Your task to perform on an android device: Open network settings Image 0: 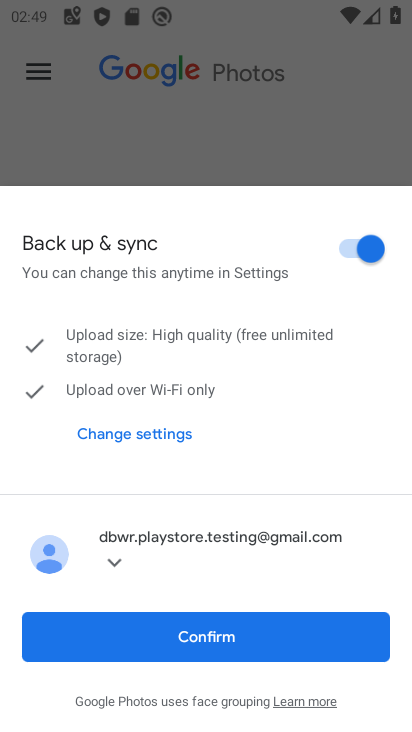
Step 0: press back button
Your task to perform on an android device: Open network settings Image 1: 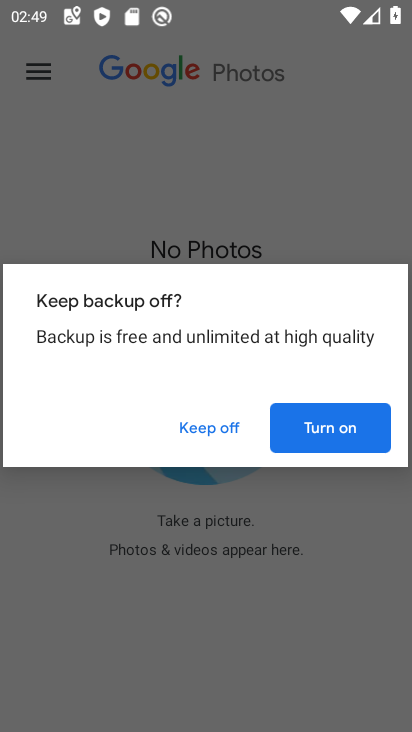
Step 1: press back button
Your task to perform on an android device: Open network settings Image 2: 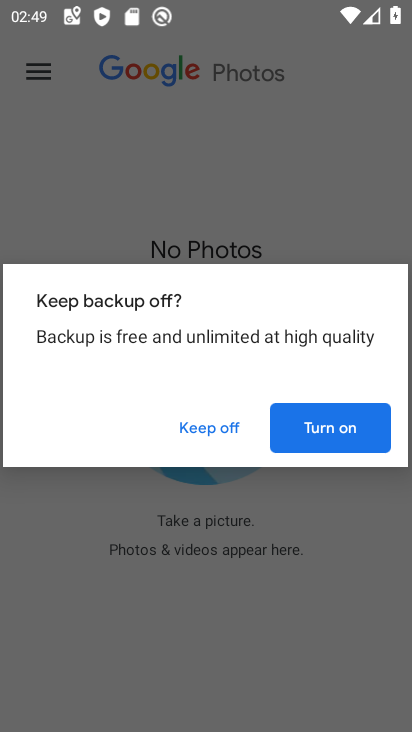
Step 2: press home button
Your task to perform on an android device: Open network settings Image 3: 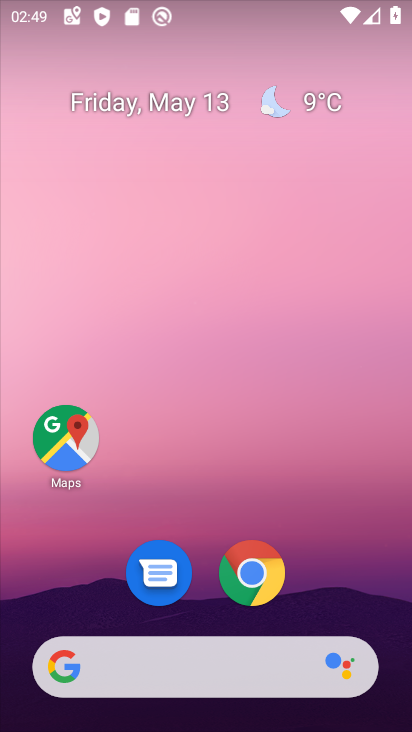
Step 3: drag from (323, 590) to (247, 169)
Your task to perform on an android device: Open network settings Image 4: 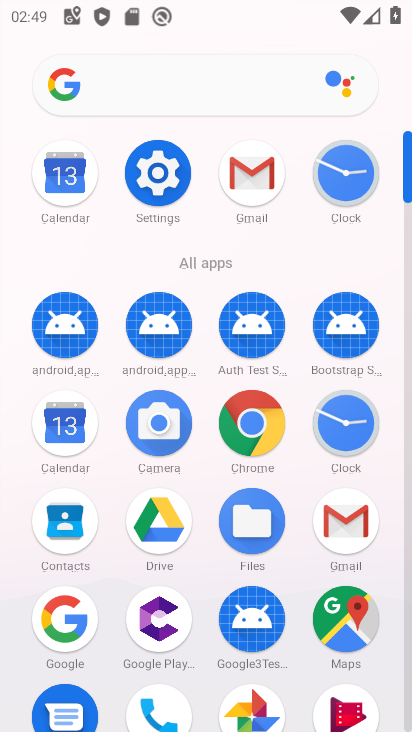
Step 4: click (158, 170)
Your task to perform on an android device: Open network settings Image 5: 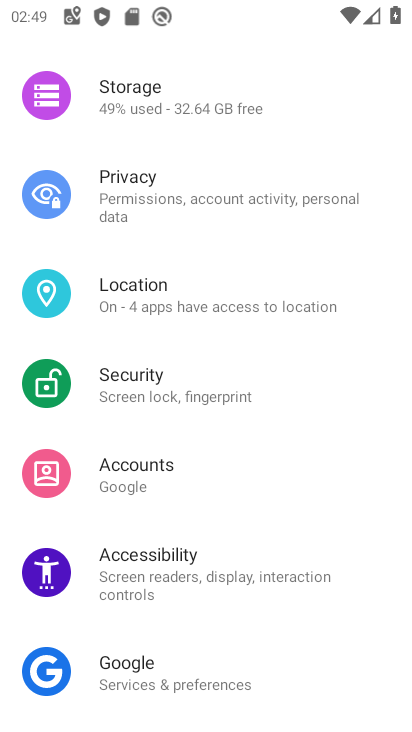
Step 5: drag from (207, 167) to (221, 374)
Your task to perform on an android device: Open network settings Image 6: 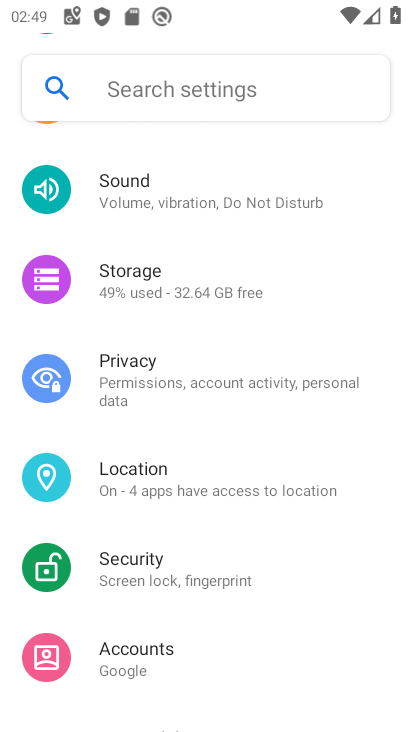
Step 6: drag from (196, 172) to (209, 370)
Your task to perform on an android device: Open network settings Image 7: 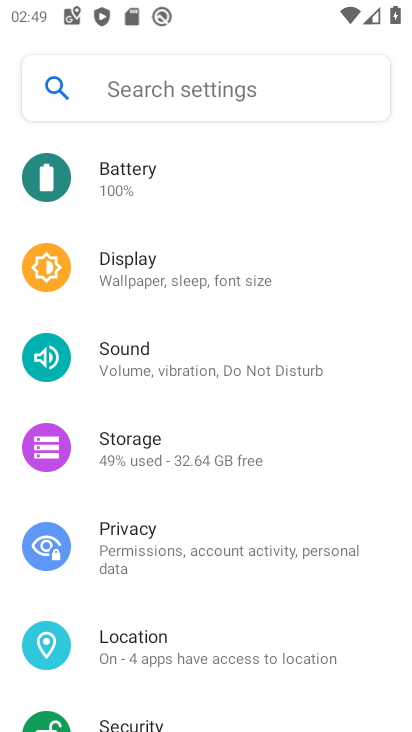
Step 7: drag from (187, 241) to (224, 409)
Your task to perform on an android device: Open network settings Image 8: 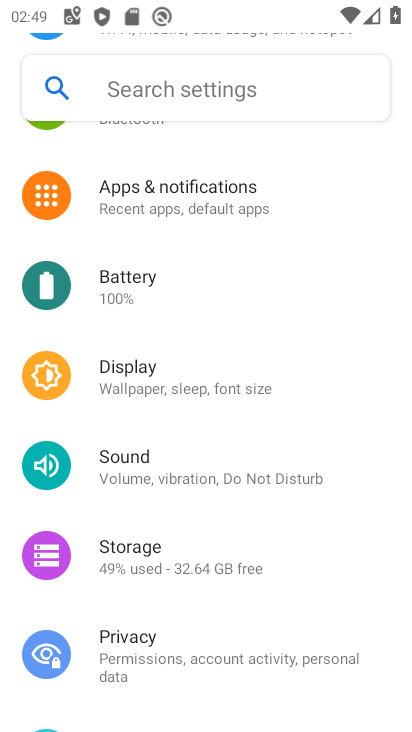
Step 8: drag from (205, 240) to (231, 446)
Your task to perform on an android device: Open network settings Image 9: 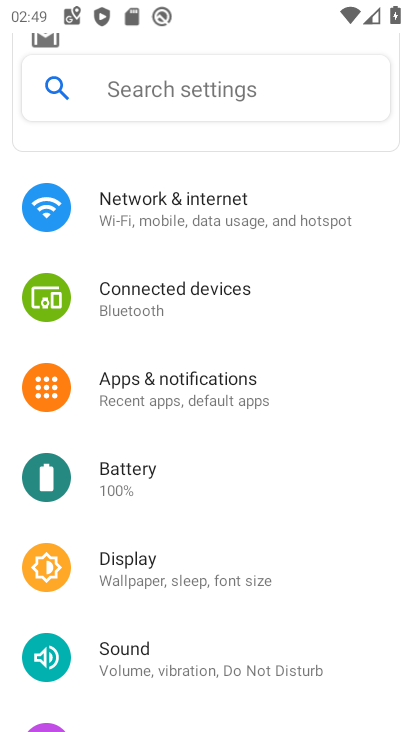
Step 9: click (187, 221)
Your task to perform on an android device: Open network settings Image 10: 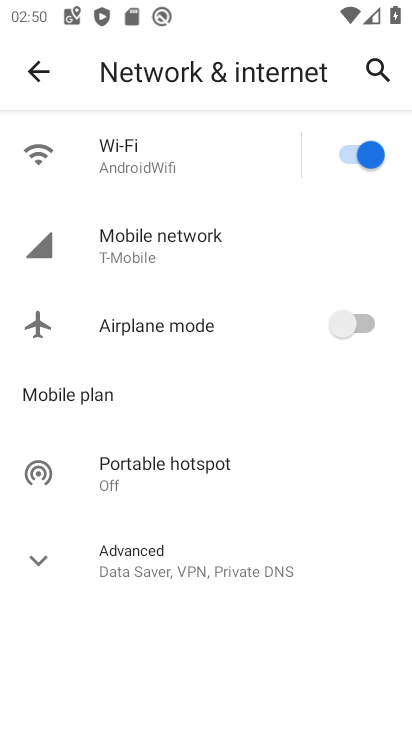
Step 10: click (188, 240)
Your task to perform on an android device: Open network settings Image 11: 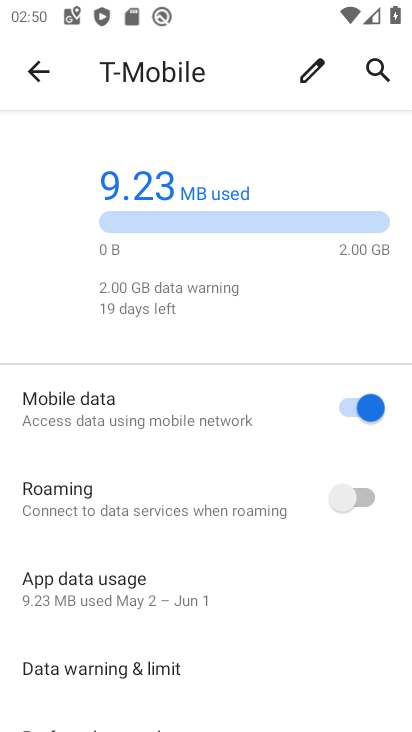
Step 11: task complete